Your task to perform on an android device: Open Reddit.com Image 0: 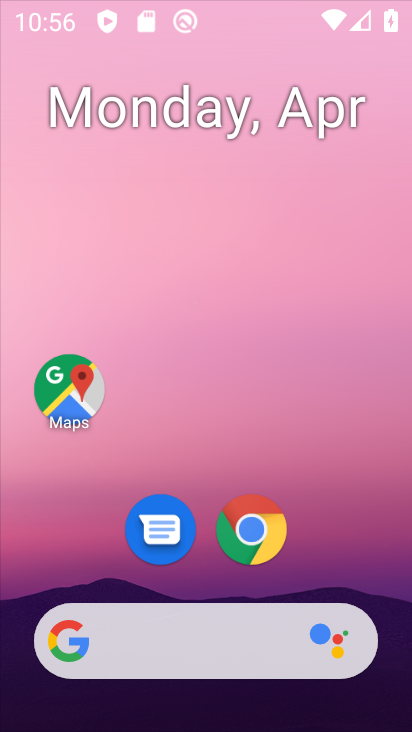
Step 0: drag from (271, 131) to (262, 30)
Your task to perform on an android device: Open Reddit.com Image 1: 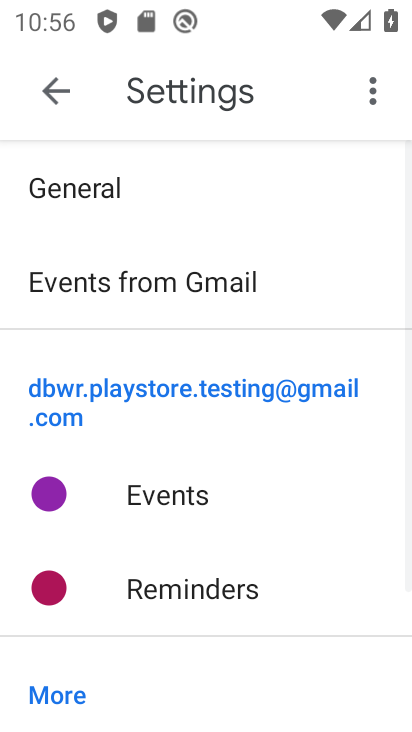
Step 1: press home button
Your task to perform on an android device: Open Reddit.com Image 2: 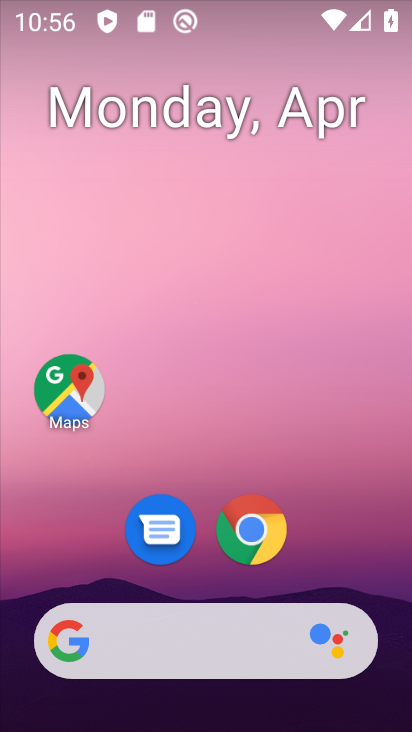
Step 2: click (261, 517)
Your task to perform on an android device: Open Reddit.com Image 3: 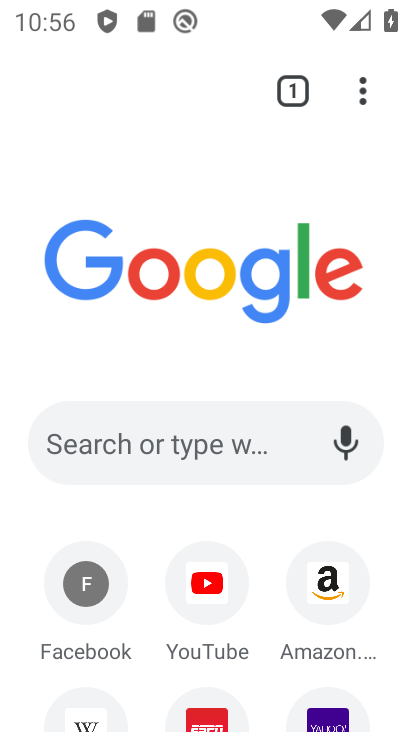
Step 3: click (166, 427)
Your task to perform on an android device: Open Reddit.com Image 4: 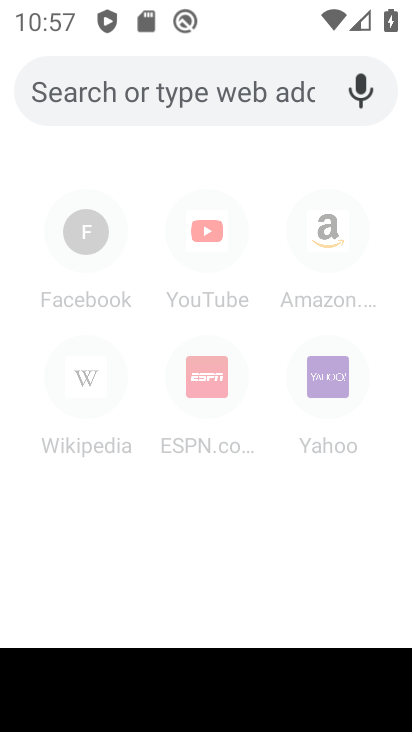
Step 4: type "reddit.com"
Your task to perform on an android device: Open Reddit.com Image 5: 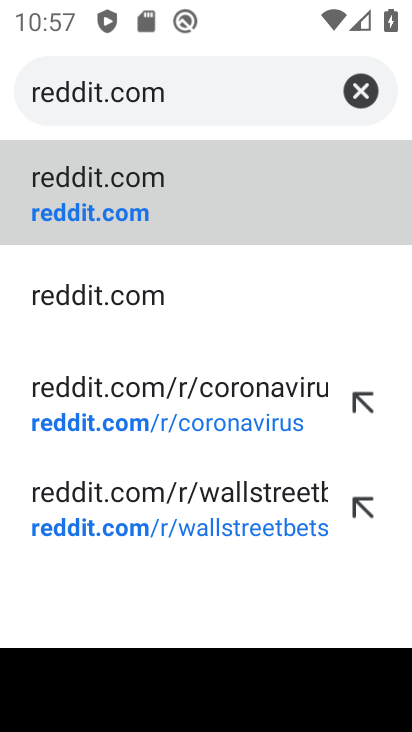
Step 5: click (138, 213)
Your task to perform on an android device: Open Reddit.com Image 6: 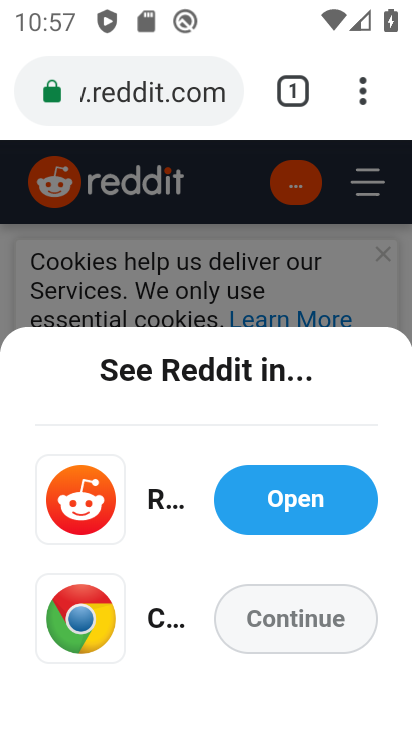
Step 6: task complete